Your task to perform on an android device: set an alarm Image 0: 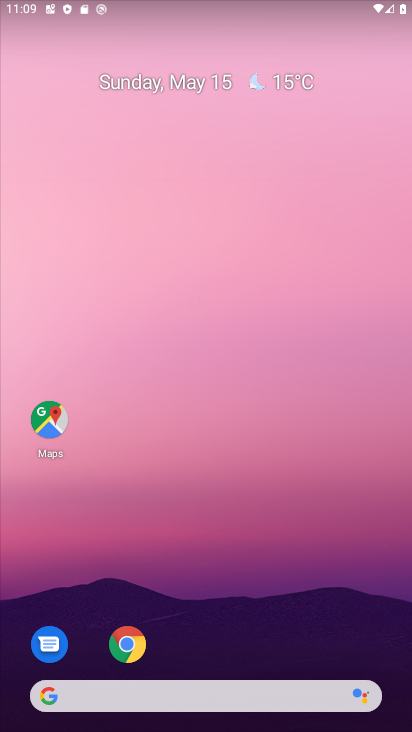
Step 0: drag from (264, 490) to (177, 46)
Your task to perform on an android device: set an alarm Image 1: 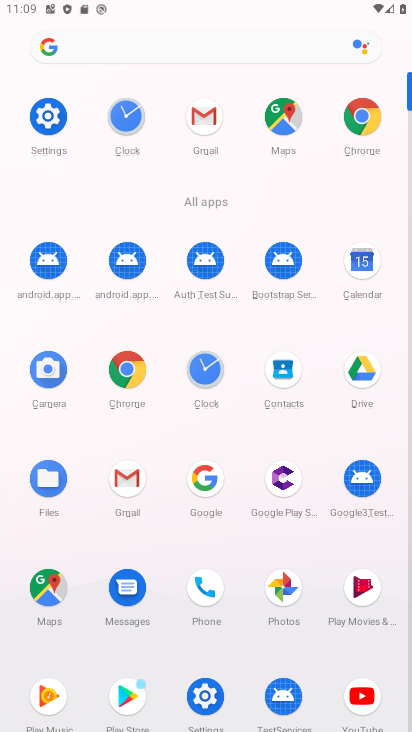
Step 1: click (207, 370)
Your task to perform on an android device: set an alarm Image 2: 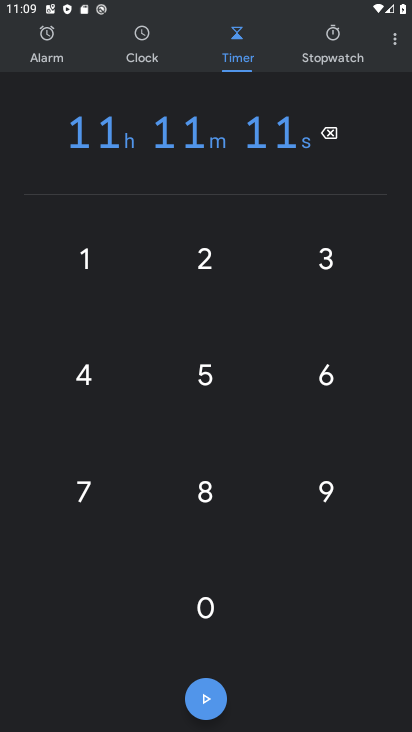
Step 2: click (38, 48)
Your task to perform on an android device: set an alarm Image 3: 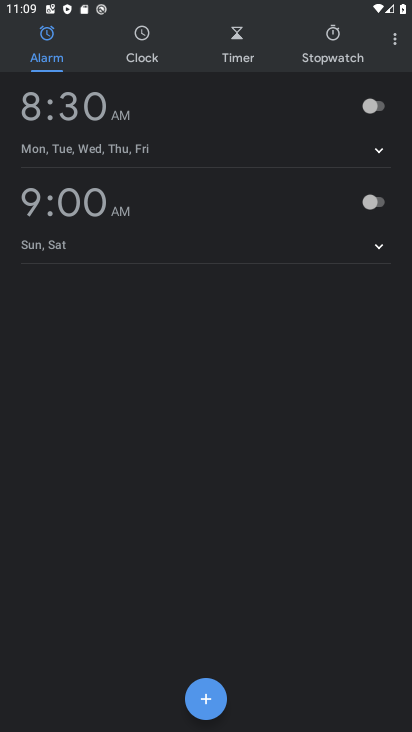
Step 3: click (375, 108)
Your task to perform on an android device: set an alarm Image 4: 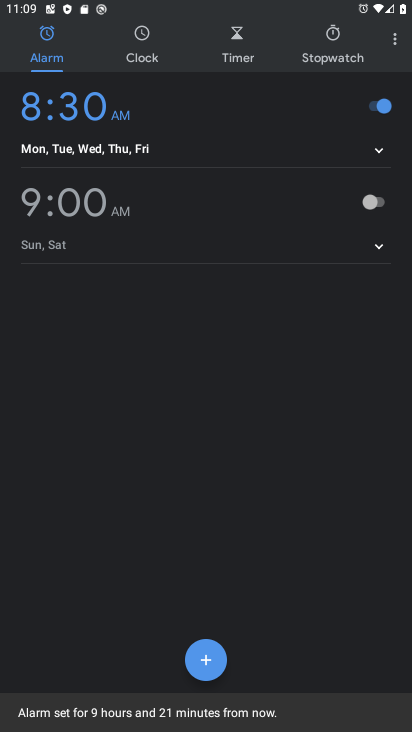
Step 4: task complete